Your task to perform on an android device: Go to Google maps Image 0: 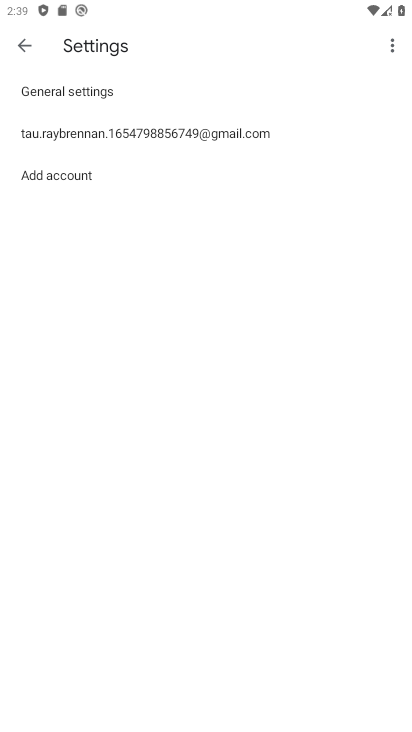
Step 0: press home button
Your task to perform on an android device: Go to Google maps Image 1: 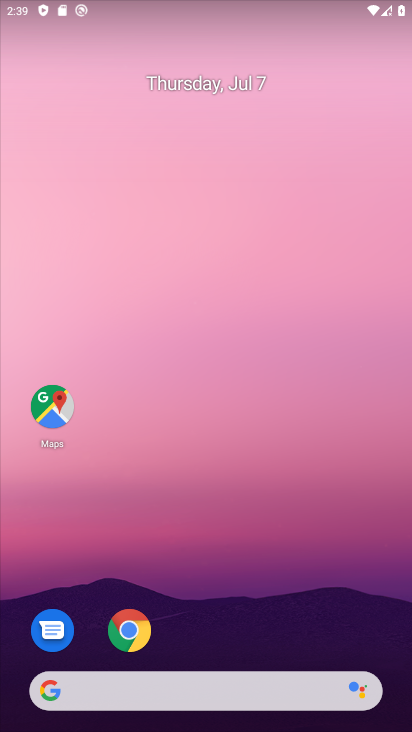
Step 1: drag from (266, 629) to (273, 177)
Your task to perform on an android device: Go to Google maps Image 2: 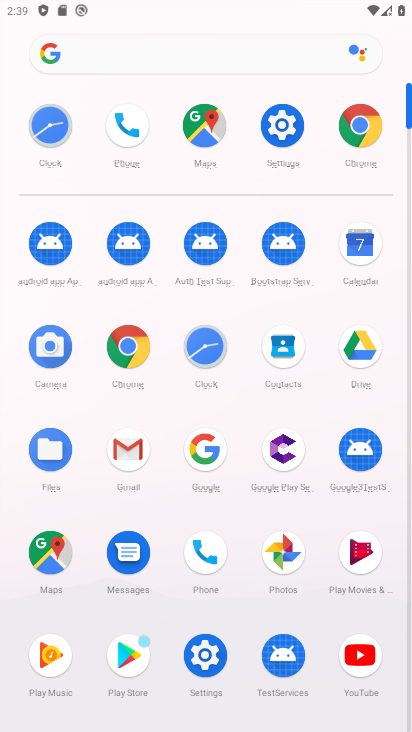
Step 2: click (52, 542)
Your task to perform on an android device: Go to Google maps Image 3: 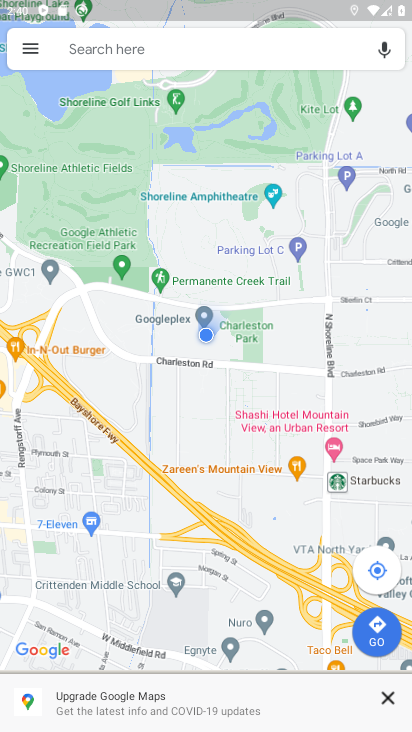
Step 3: task complete